Your task to perform on an android device: Go to CNN.com Image 0: 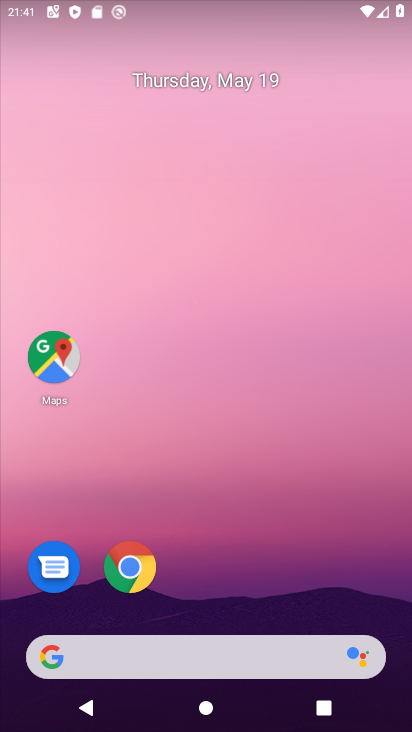
Step 0: click (126, 561)
Your task to perform on an android device: Go to CNN.com Image 1: 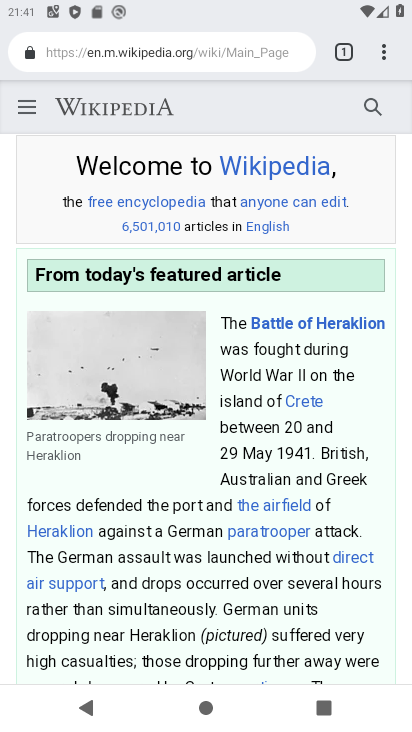
Step 1: click (341, 52)
Your task to perform on an android device: Go to CNN.com Image 2: 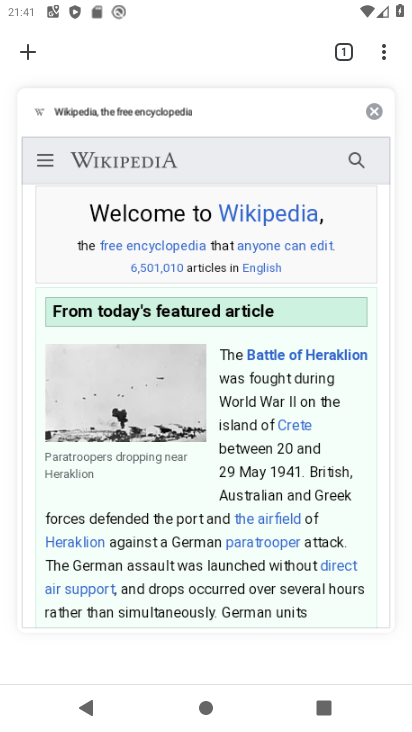
Step 2: click (376, 109)
Your task to perform on an android device: Go to CNN.com Image 3: 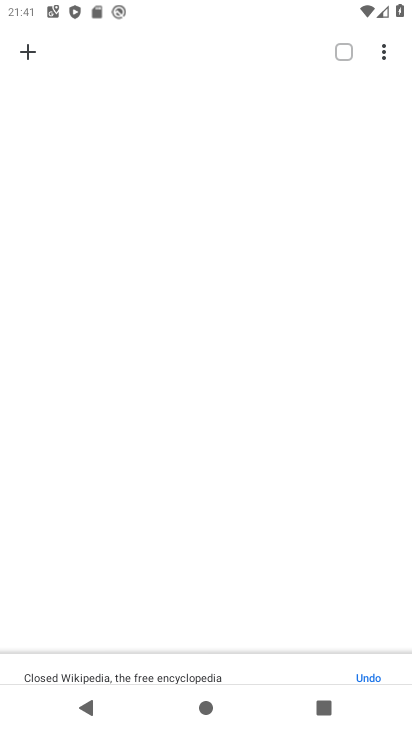
Step 3: click (24, 44)
Your task to perform on an android device: Go to CNN.com Image 4: 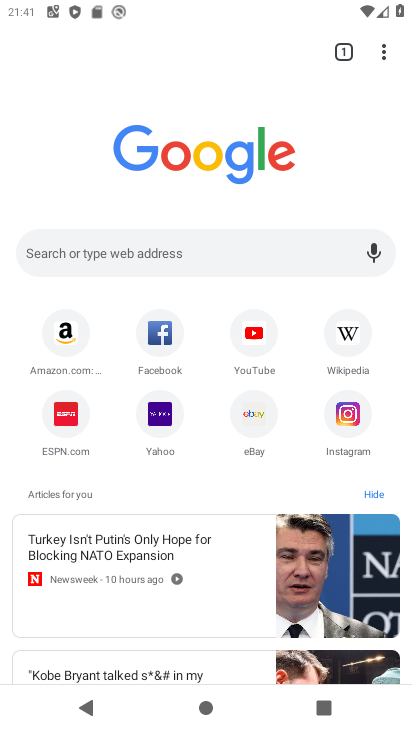
Step 4: click (114, 254)
Your task to perform on an android device: Go to CNN.com Image 5: 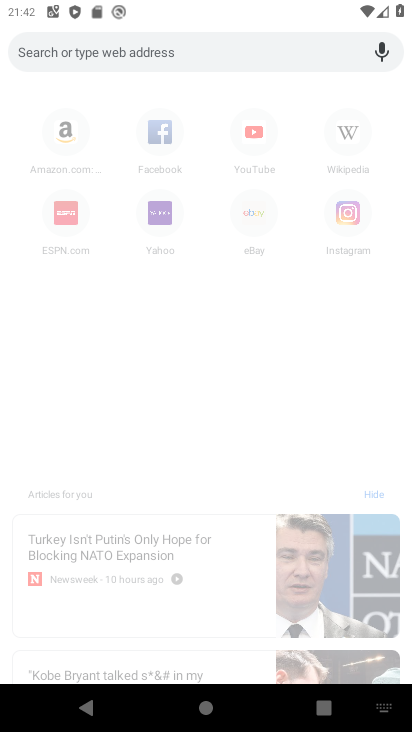
Step 5: type "cnn.com"
Your task to perform on an android device: Go to CNN.com Image 6: 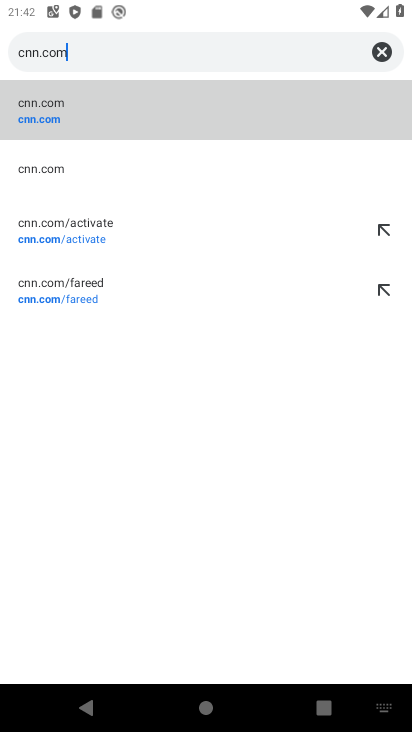
Step 6: click (80, 112)
Your task to perform on an android device: Go to CNN.com Image 7: 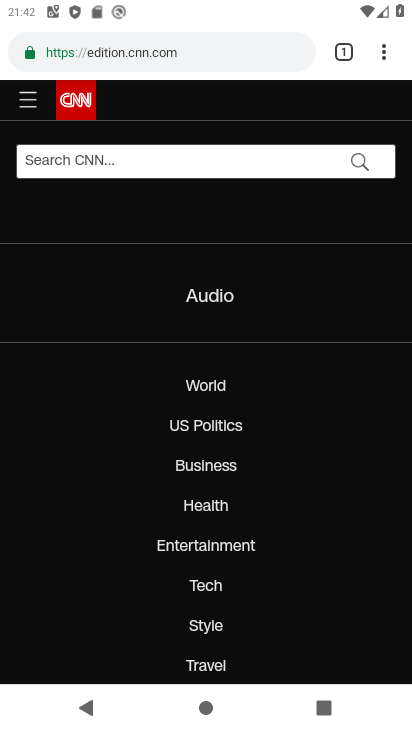
Step 7: task complete